Your task to perform on an android device: turn on translation in the chrome app Image 0: 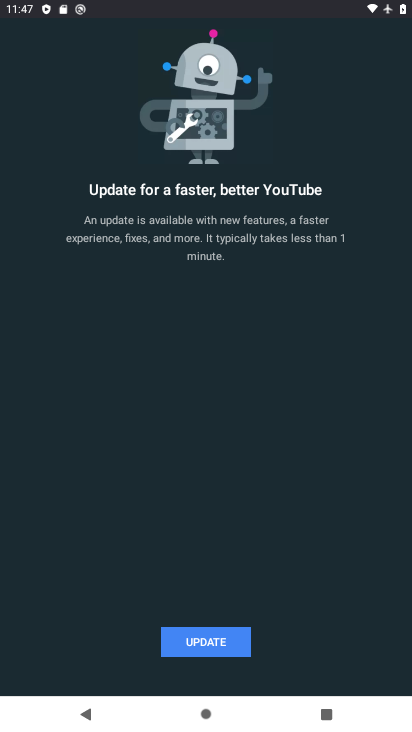
Step 0: press home button
Your task to perform on an android device: turn on translation in the chrome app Image 1: 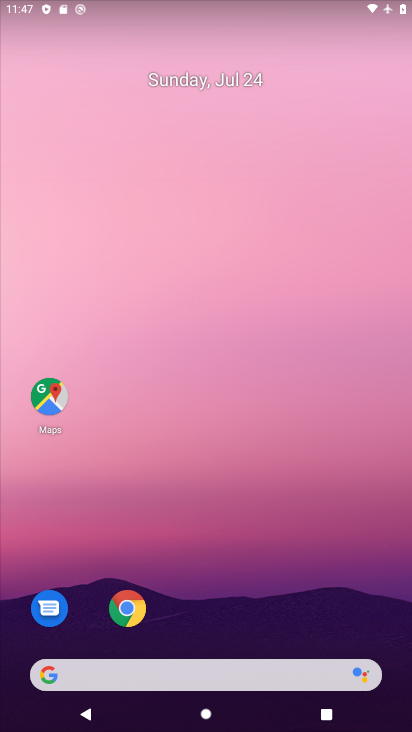
Step 1: drag from (251, 486) to (298, 160)
Your task to perform on an android device: turn on translation in the chrome app Image 2: 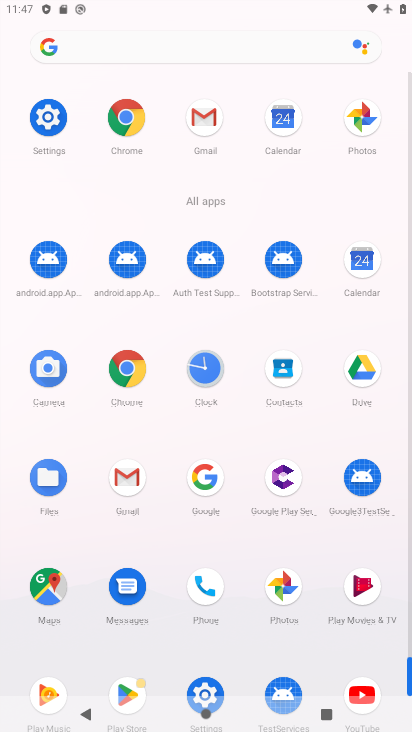
Step 2: click (131, 135)
Your task to perform on an android device: turn on translation in the chrome app Image 3: 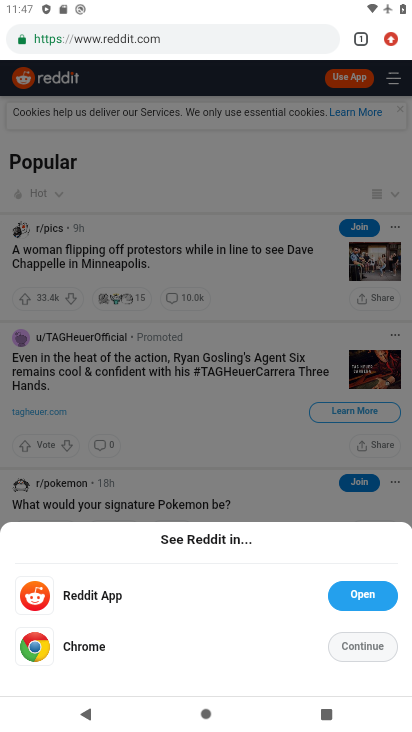
Step 3: click (385, 43)
Your task to perform on an android device: turn on translation in the chrome app Image 4: 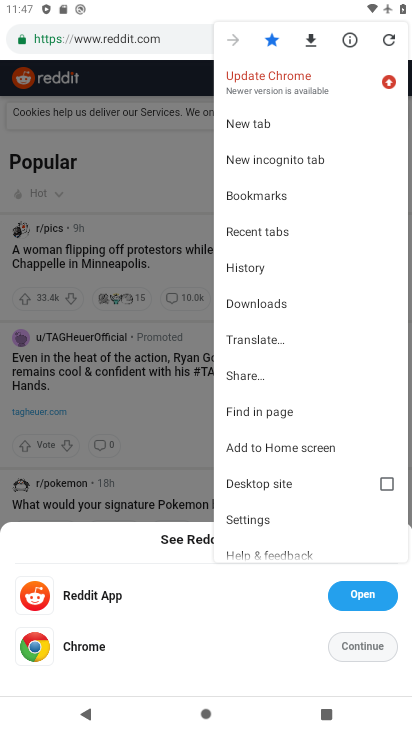
Step 4: click (277, 350)
Your task to perform on an android device: turn on translation in the chrome app Image 5: 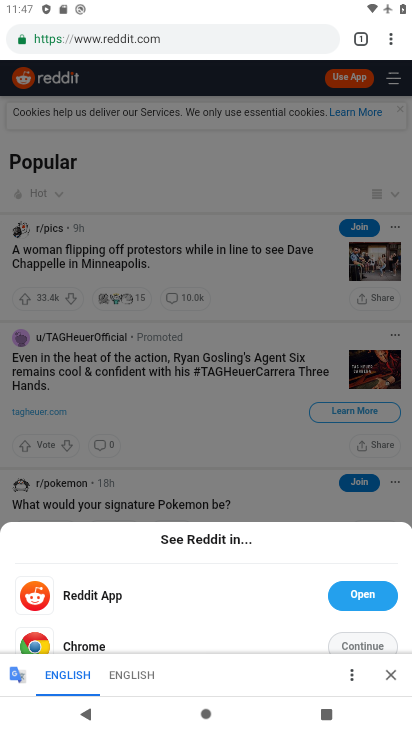
Step 5: click (351, 677)
Your task to perform on an android device: turn on translation in the chrome app Image 6: 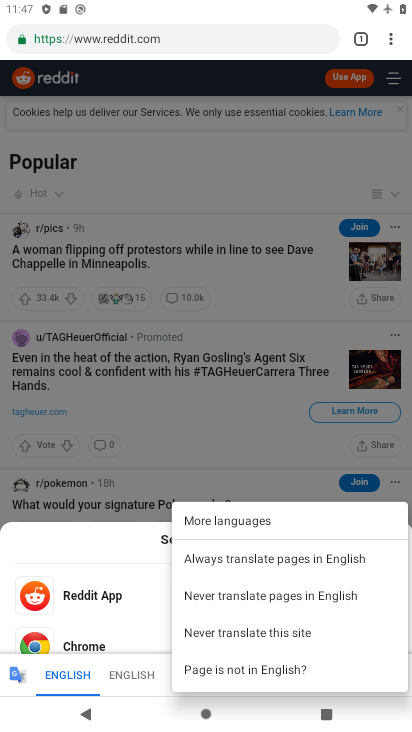
Step 6: click (282, 565)
Your task to perform on an android device: turn on translation in the chrome app Image 7: 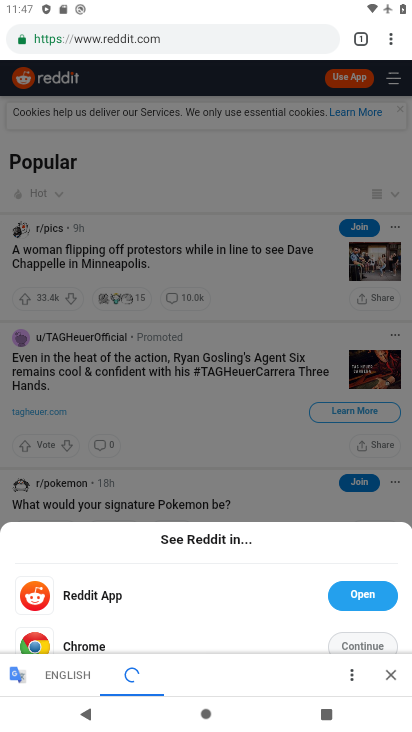
Step 7: task complete